Your task to perform on an android device: Open Google Chrome and open the bookmarks view Image 0: 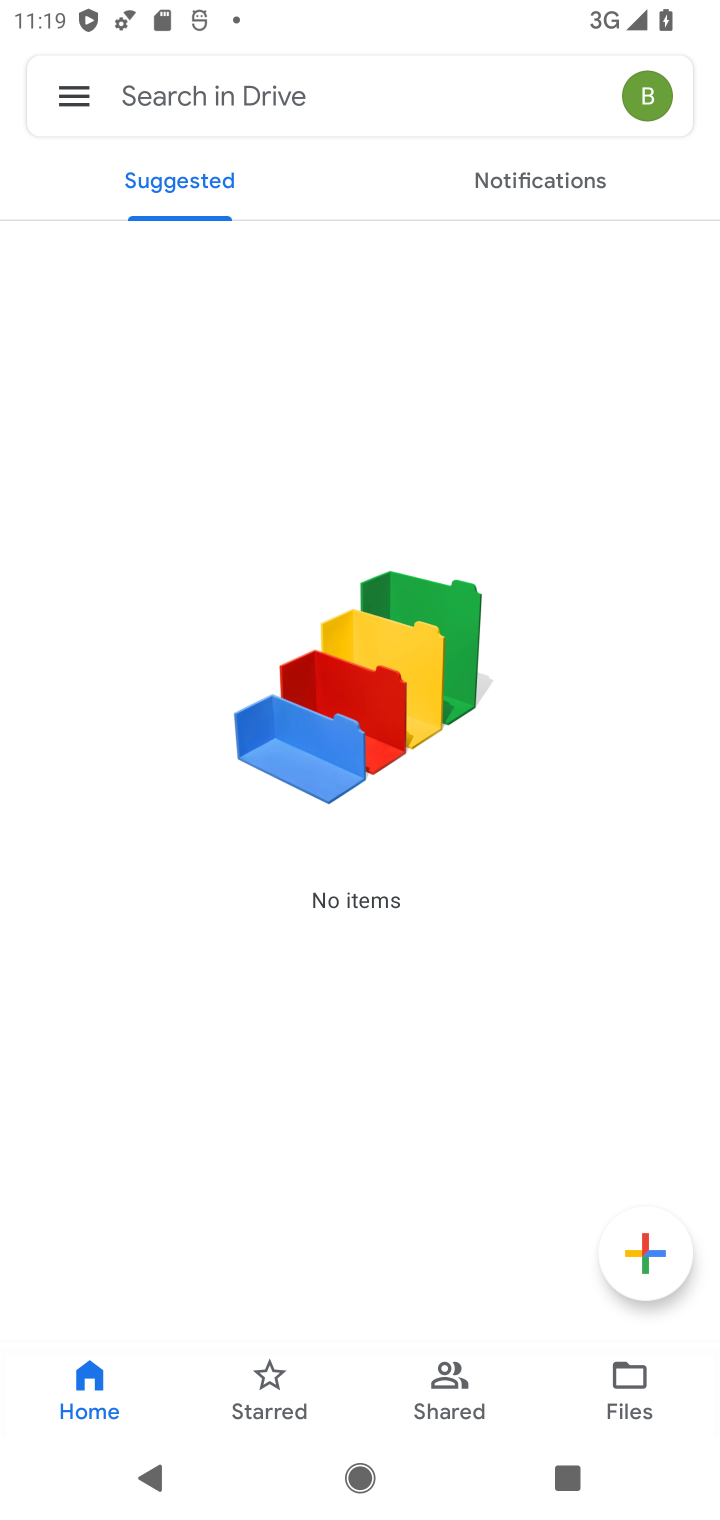
Step 0: press home button
Your task to perform on an android device: Open Google Chrome and open the bookmarks view Image 1: 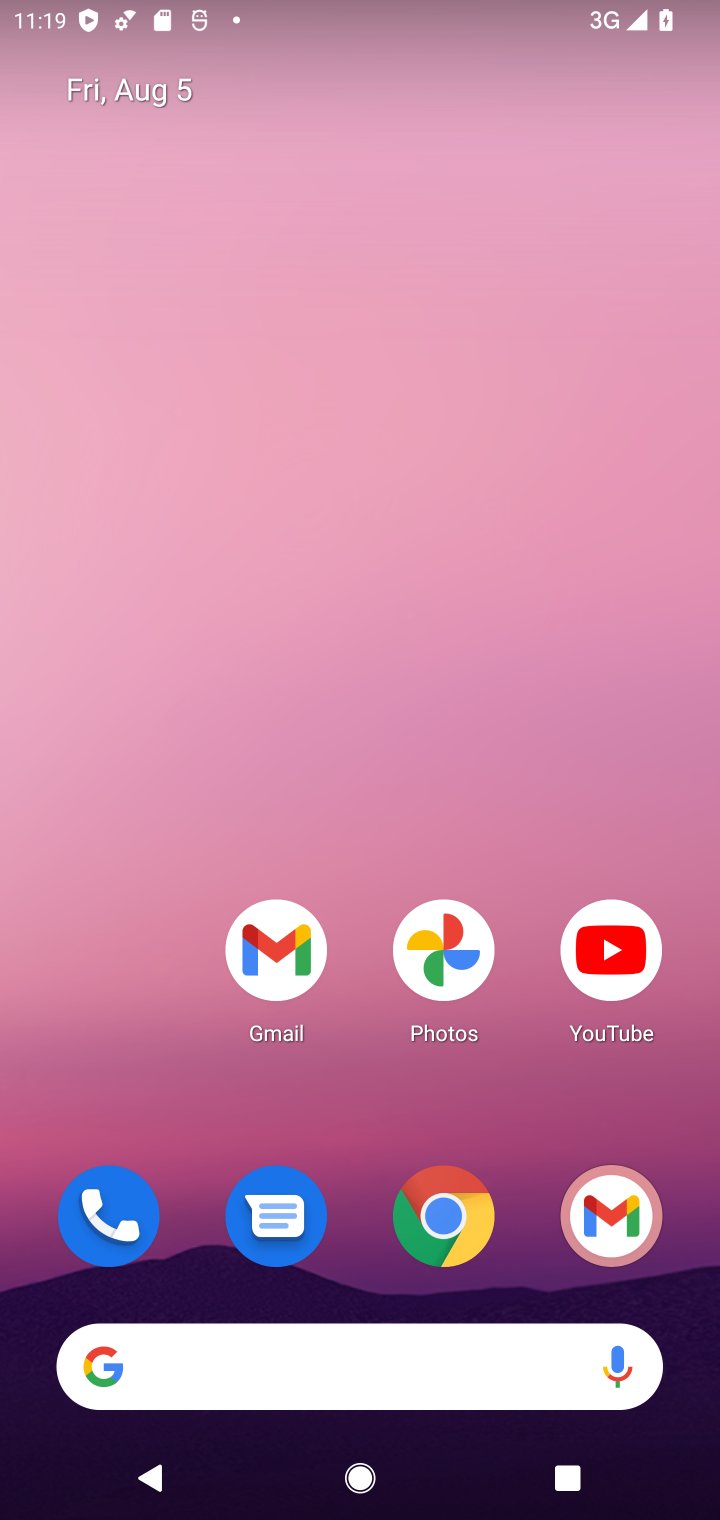
Step 1: press home button
Your task to perform on an android device: Open Google Chrome and open the bookmarks view Image 2: 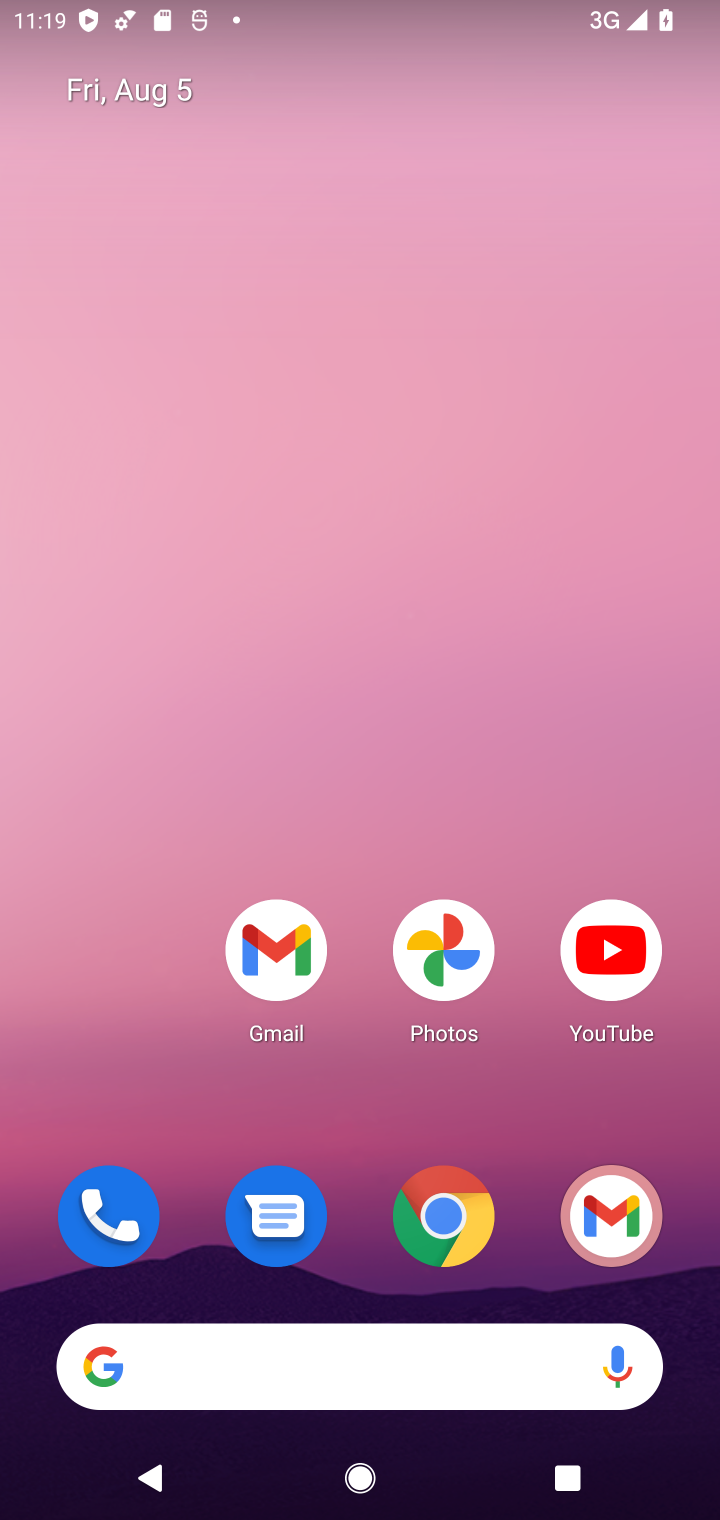
Step 2: drag from (356, 1390) to (500, 165)
Your task to perform on an android device: Open Google Chrome and open the bookmarks view Image 3: 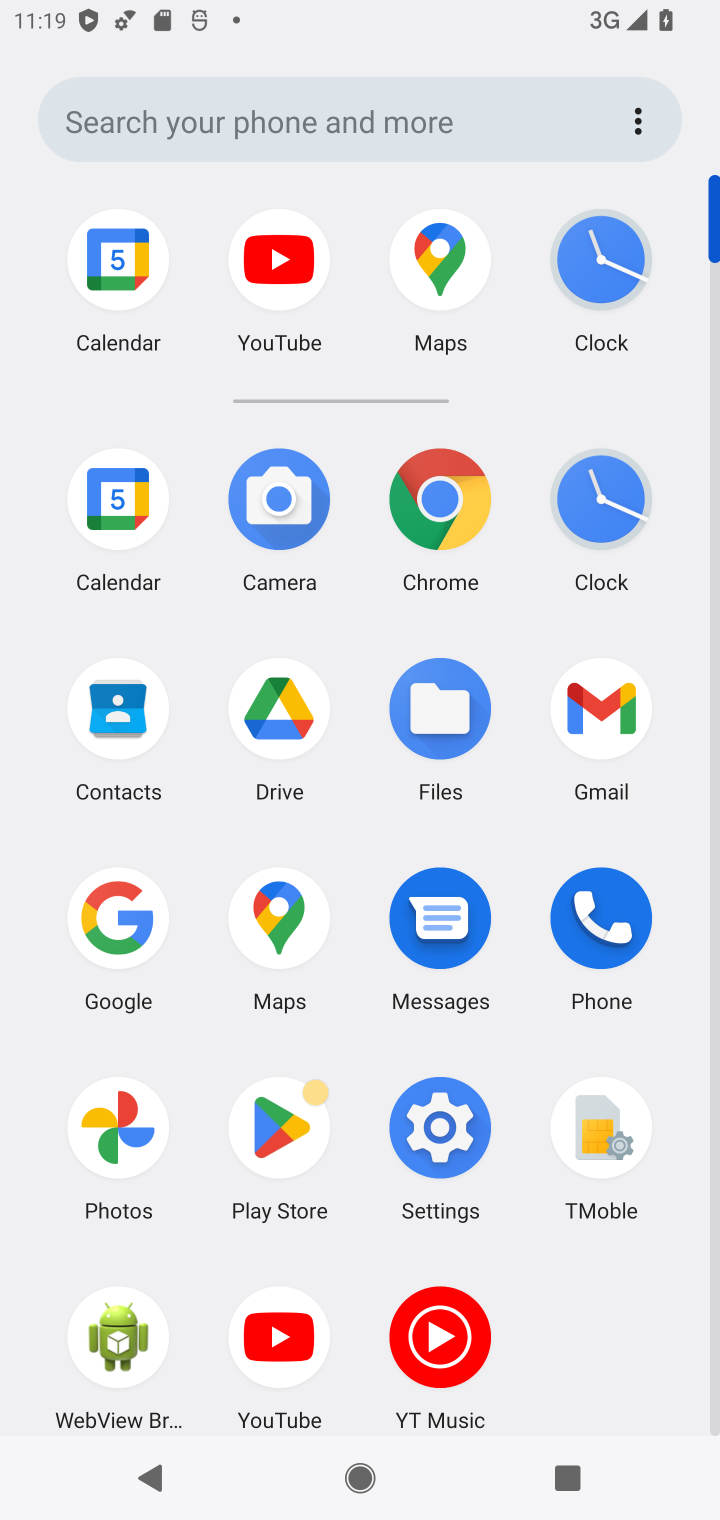
Step 3: click (463, 485)
Your task to perform on an android device: Open Google Chrome and open the bookmarks view Image 4: 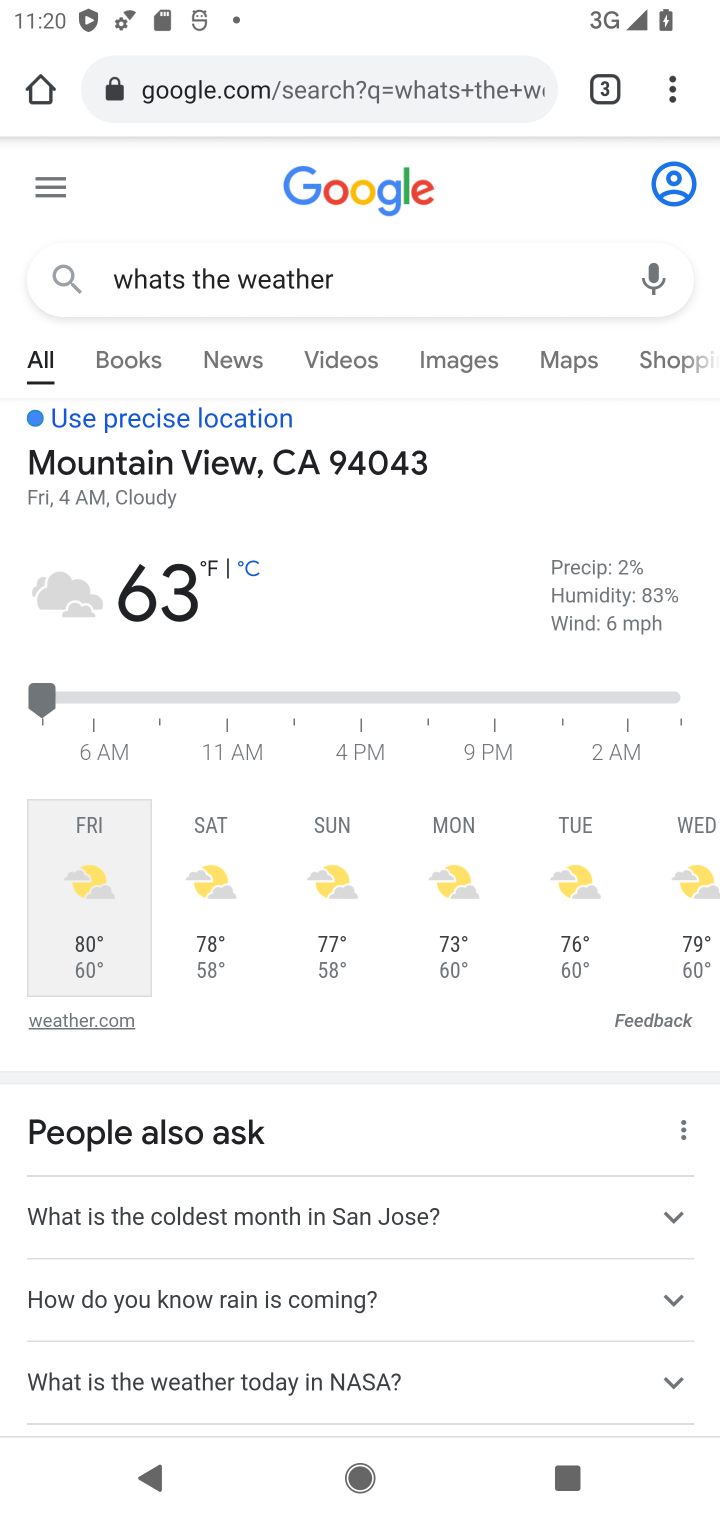
Step 4: click (672, 79)
Your task to perform on an android device: Open Google Chrome and open the bookmarks view Image 5: 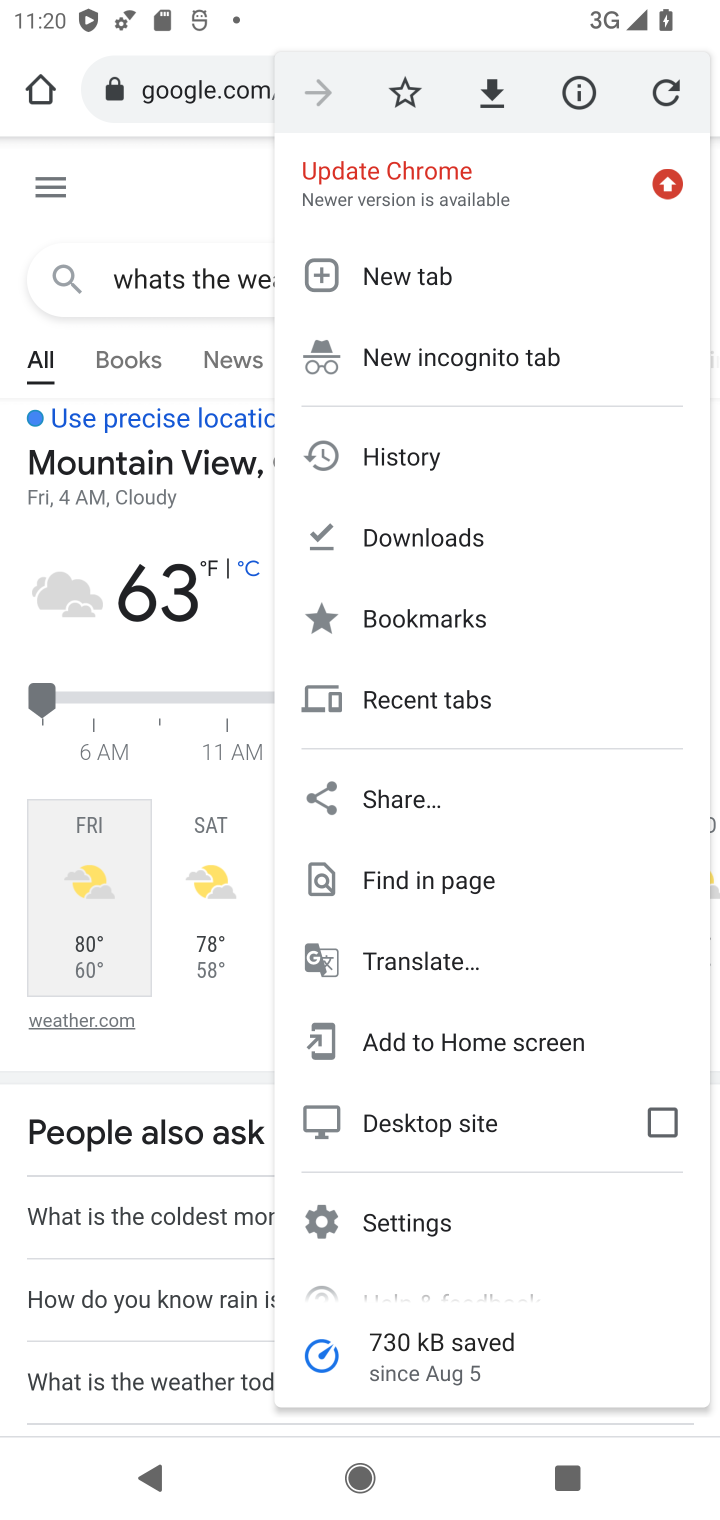
Step 5: click (429, 614)
Your task to perform on an android device: Open Google Chrome and open the bookmarks view Image 6: 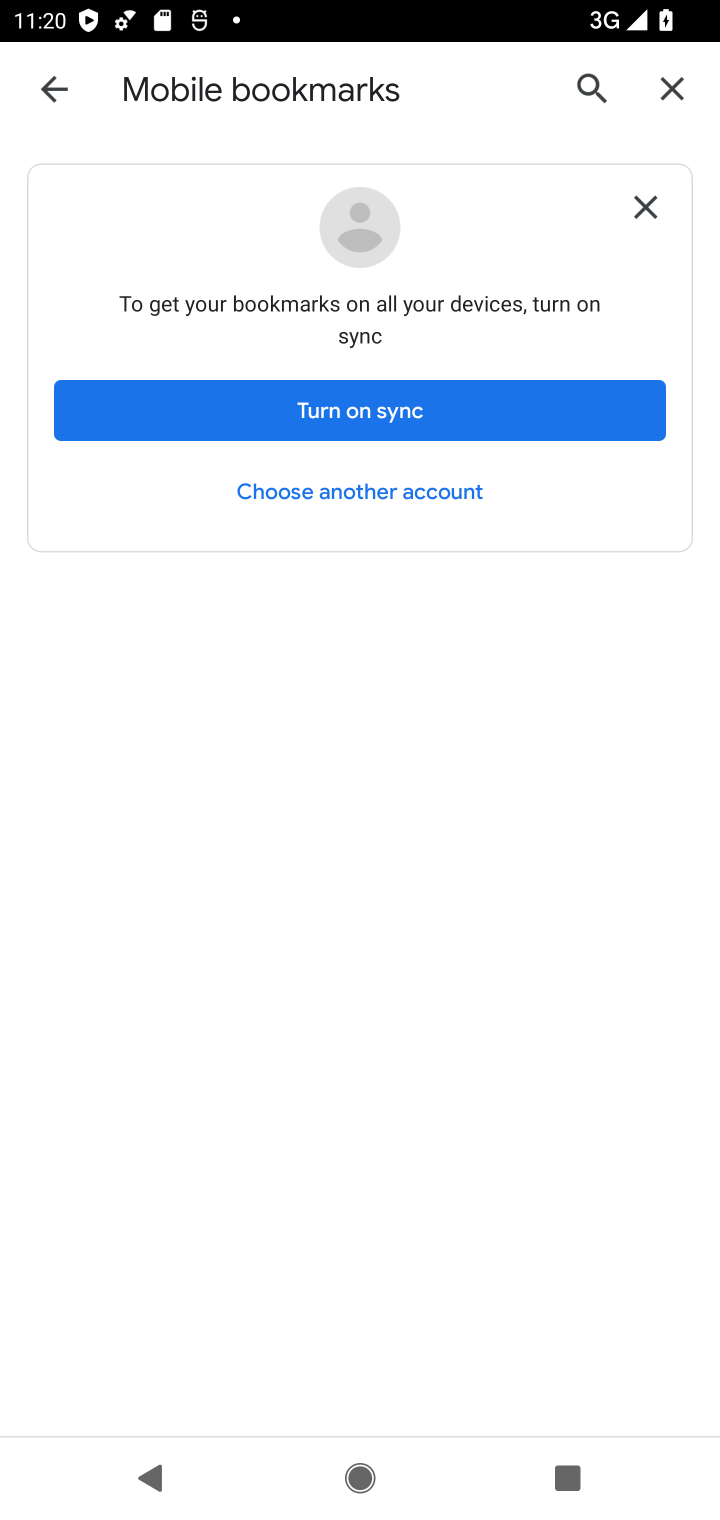
Step 6: task complete